Your task to perform on an android device: Open network settings Image 0: 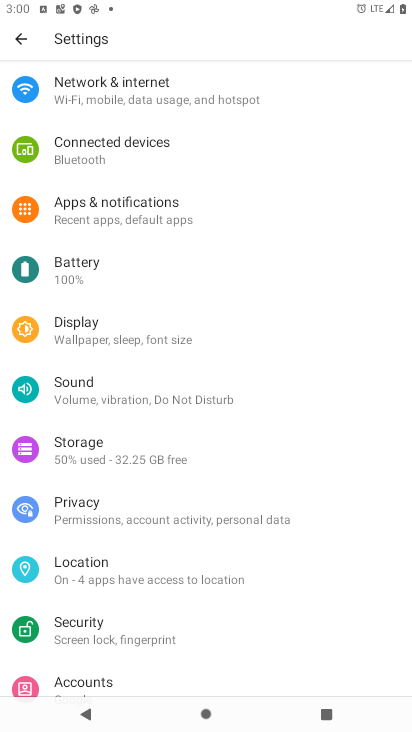
Step 0: click (109, 82)
Your task to perform on an android device: Open network settings Image 1: 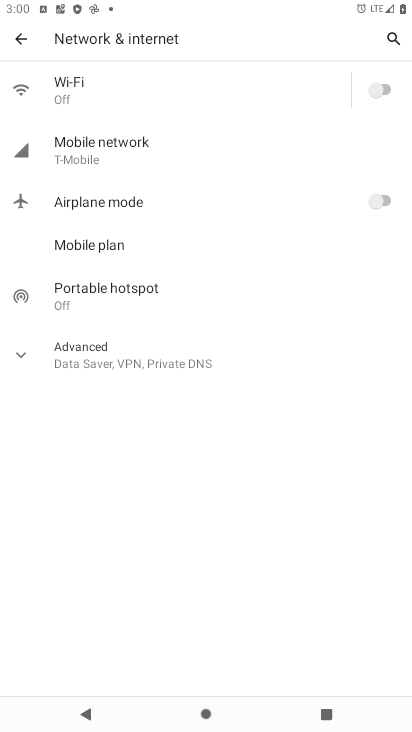
Step 1: click (112, 137)
Your task to perform on an android device: Open network settings Image 2: 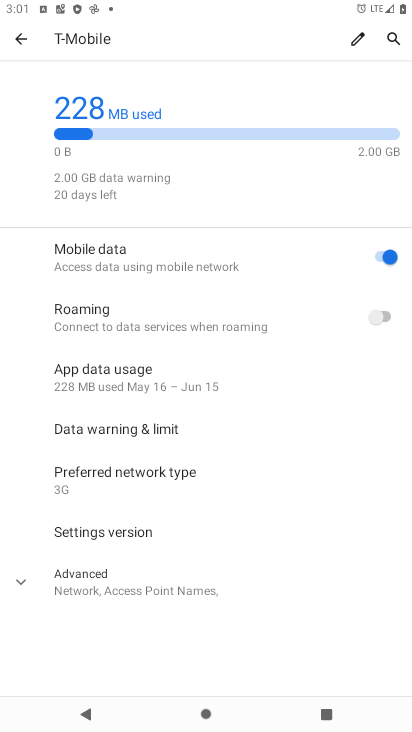
Step 2: task complete